Your task to perform on an android device: Is it going to rain this weekend? Image 0: 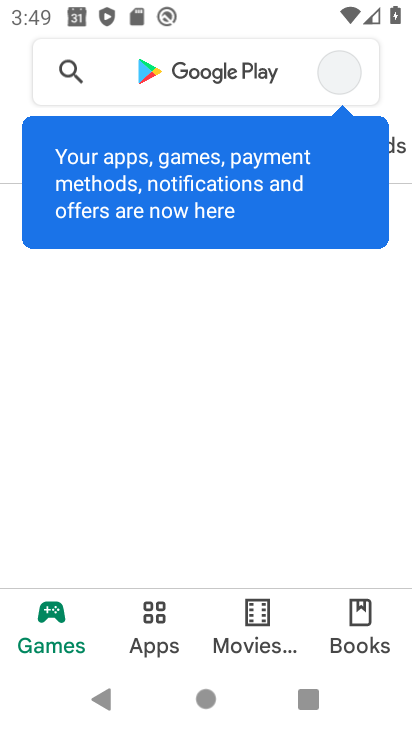
Step 0: press home button
Your task to perform on an android device: Is it going to rain this weekend? Image 1: 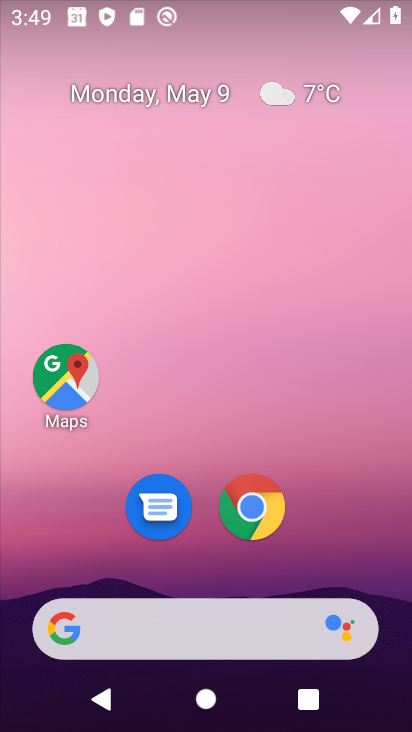
Step 1: drag from (253, 655) to (72, 84)
Your task to perform on an android device: Is it going to rain this weekend? Image 2: 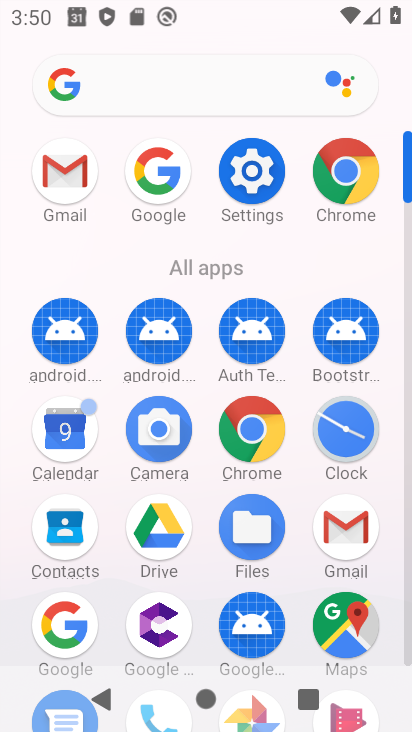
Step 2: click (106, 99)
Your task to perform on an android device: Is it going to rain this weekend? Image 3: 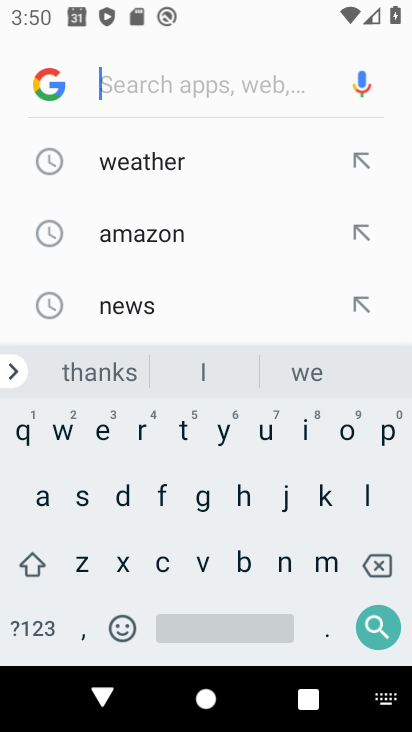
Step 3: click (173, 179)
Your task to perform on an android device: Is it going to rain this weekend? Image 4: 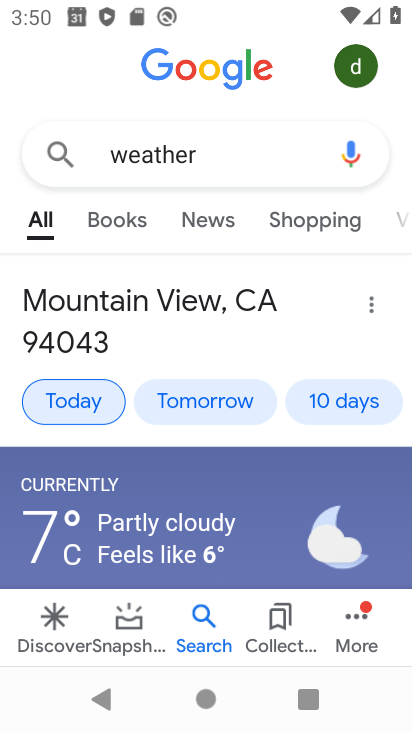
Step 4: click (357, 408)
Your task to perform on an android device: Is it going to rain this weekend? Image 5: 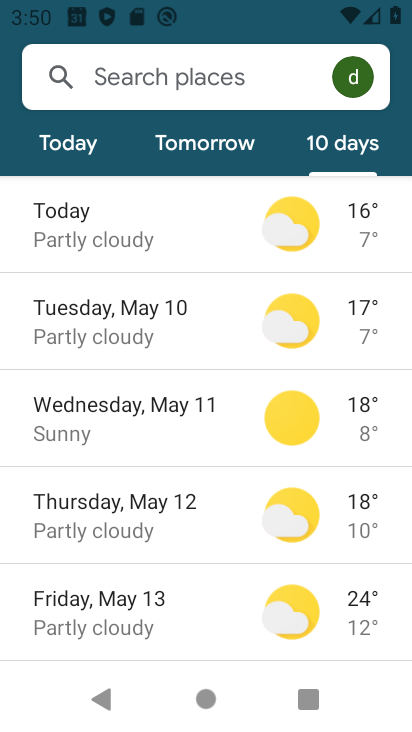
Step 5: task complete